Your task to perform on an android device: Open display settings Image 0: 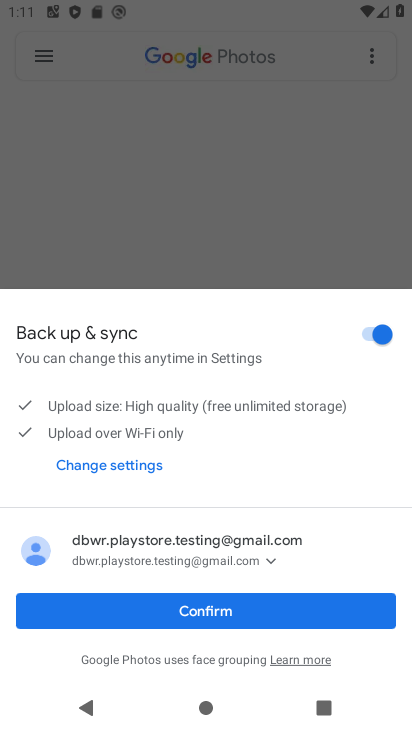
Step 0: press home button
Your task to perform on an android device: Open display settings Image 1: 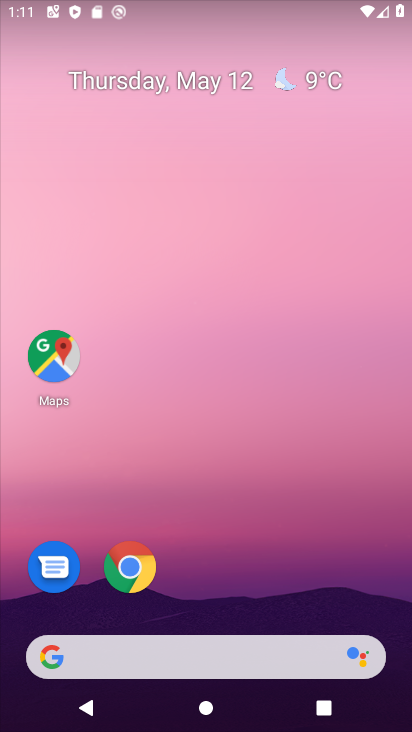
Step 1: drag from (216, 595) to (264, 25)
Your task to perform on an android device: Open display settings Image 2: 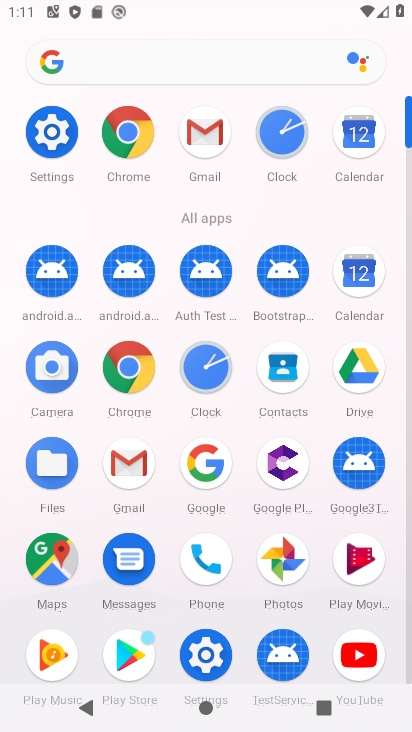
Step 2: click (54, 127)
Your task to perform on an android device: Open display settings Image 3: 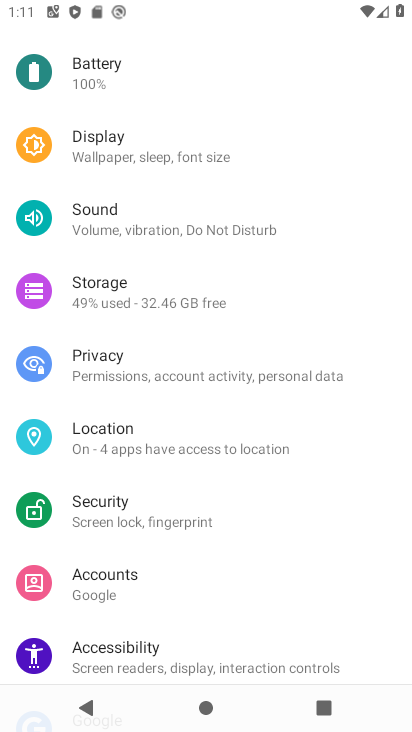
Step 3: click (132, 137)
Your task to perform on an android device: Open display settings Image 4: 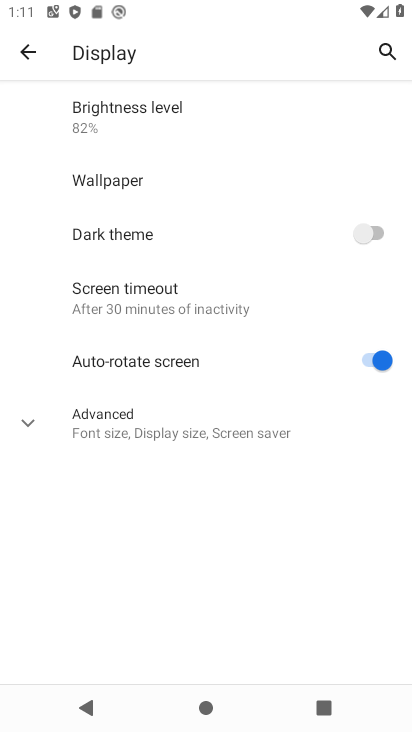
Step 4: click (26, 430)
Your task to perform on an android device: Open display settings Image 5: 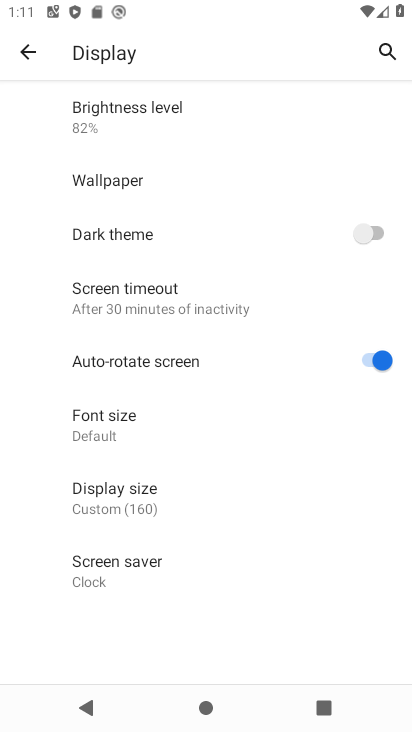
Step 5: task complete